Your task to perform on an android device: choose inbox layout in the gmail app Image 0: 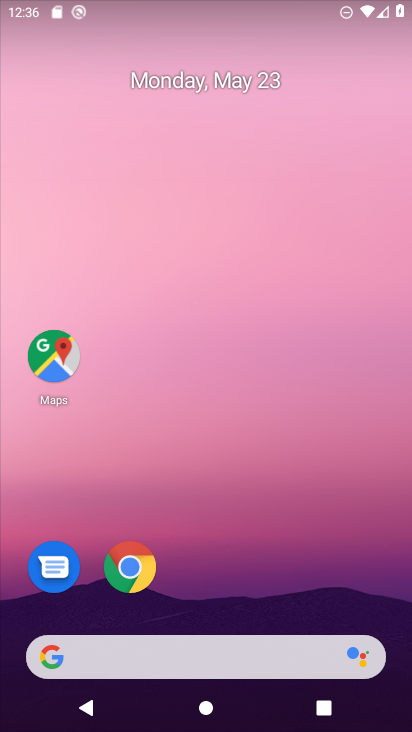
Step 0: drag from (194, 595) to (208, 173)
Your task to perform on an android device: choose inbox layout in the gmail app Image 1: 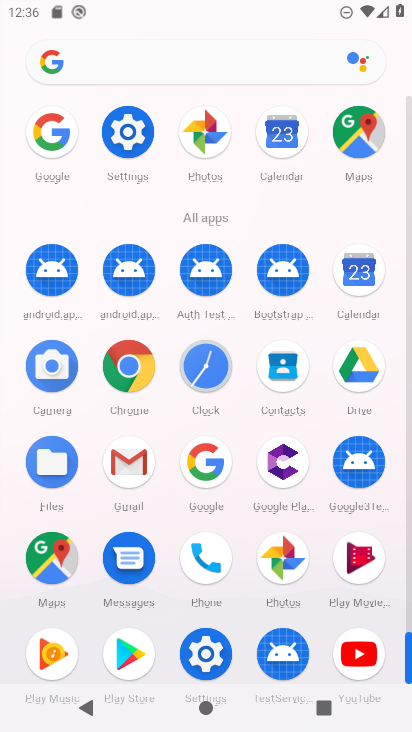
Step 1: drag from (226, 640) to (242, 410)
Your task to perform on an android device: choose inbox layout in the gmail app Image 2: 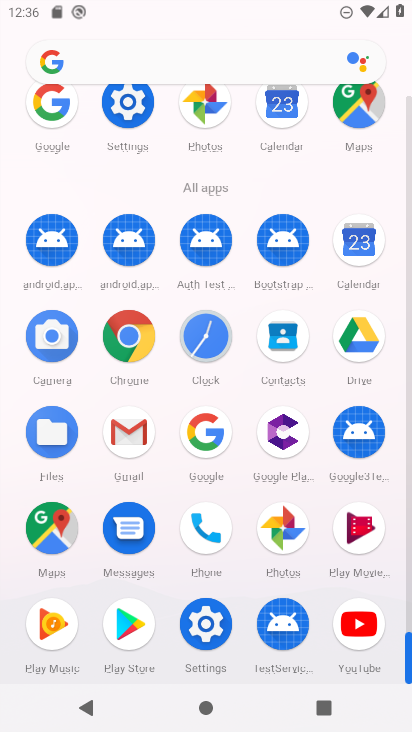
Step 2: drag from (230, 291) to (219, 489)
Your task to perform on an android device: choose inbox layout in the gmail app Image 3: 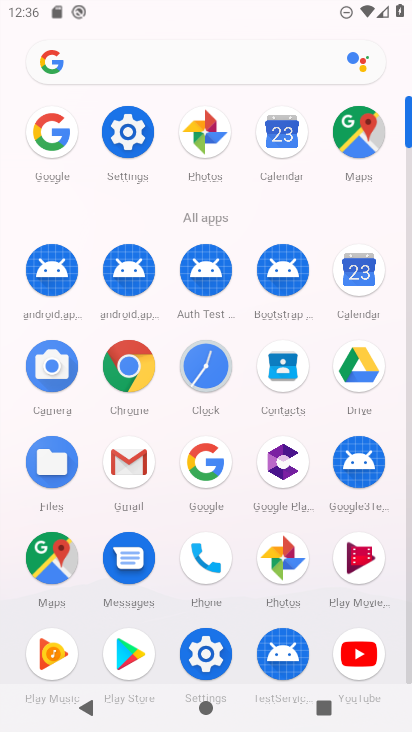
Step 3: click (114, 485)
Your task to perform on an android device: choose inbox layout in the gmail app Image 4: 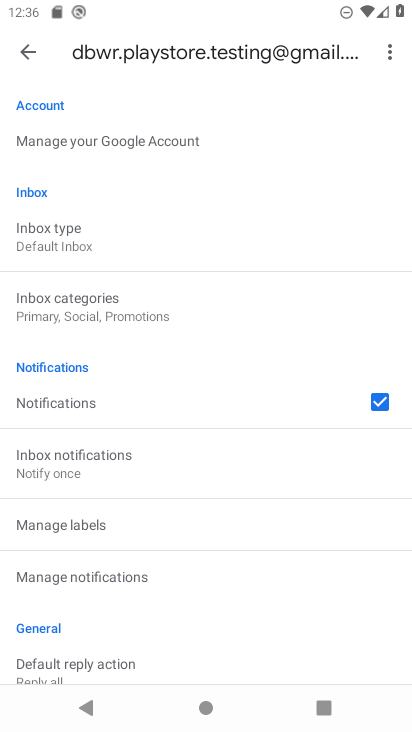
Step 4: click (98, 246)
Your task to perform on an android device: choose inbox layout in the gmail app Image 5: 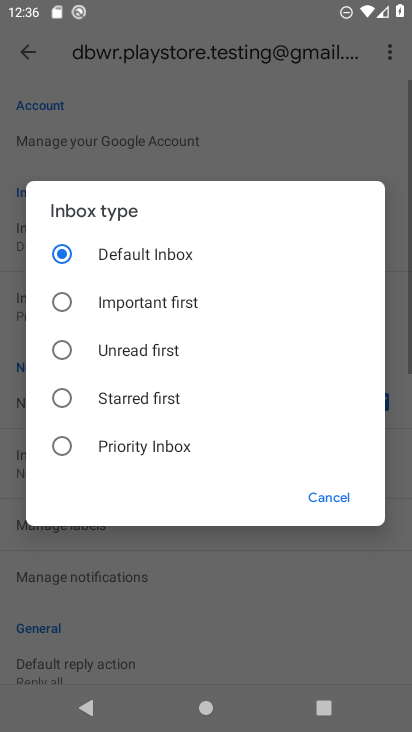
Step 5: click (110, 438)
Your task to perform on an android device: choose inbox layout in the gmail app Image 6: 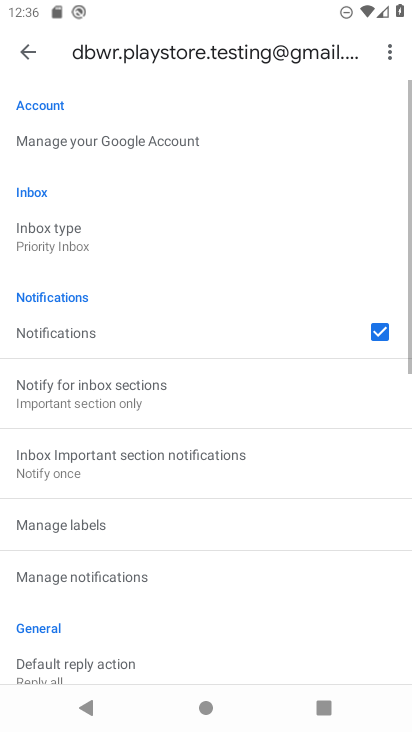
Step 6: task complete